Your task to perform on an android device: check the backup settings in the google photos Image 0: 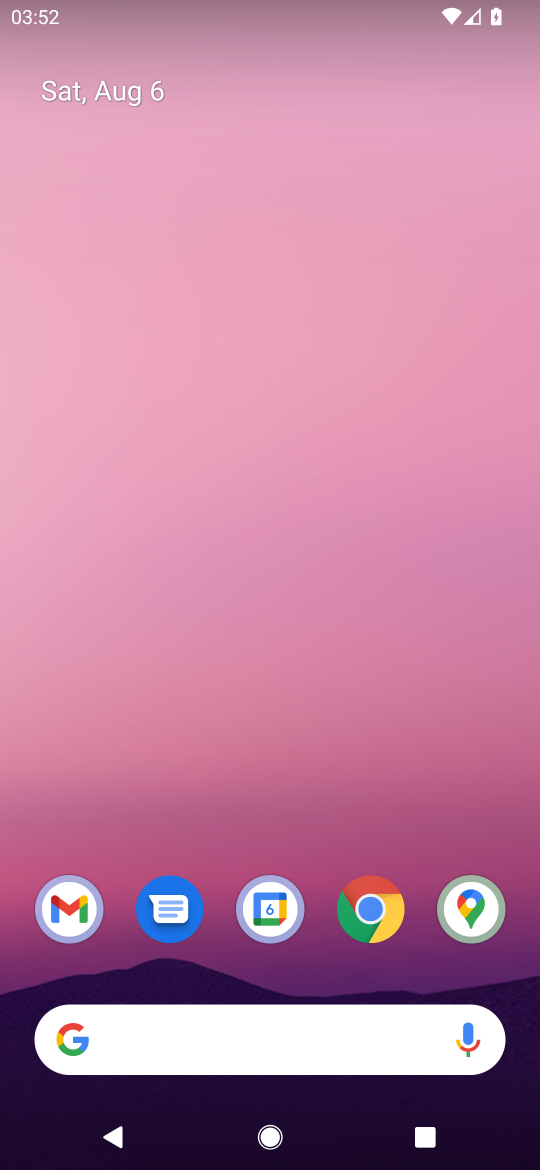
Step 0: drag from (276, 962) to (461, 16)
Your task to perform on an android device: check the backup settings in the google photos Image 1: 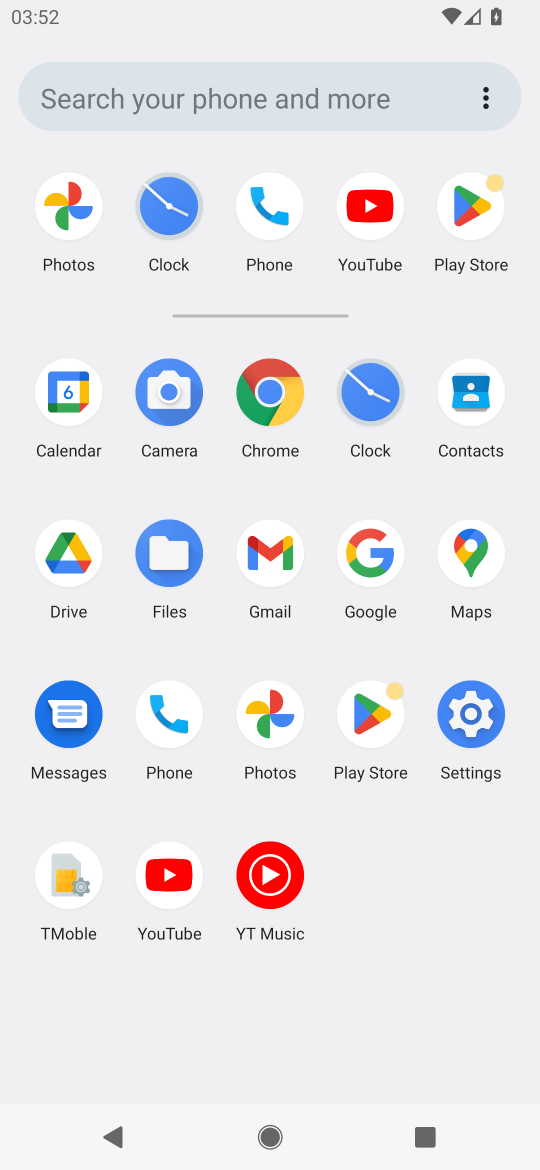
Step 1: click (271, 708)
Your task to perform on an android device: check the backup settings in the google photos Image 2: 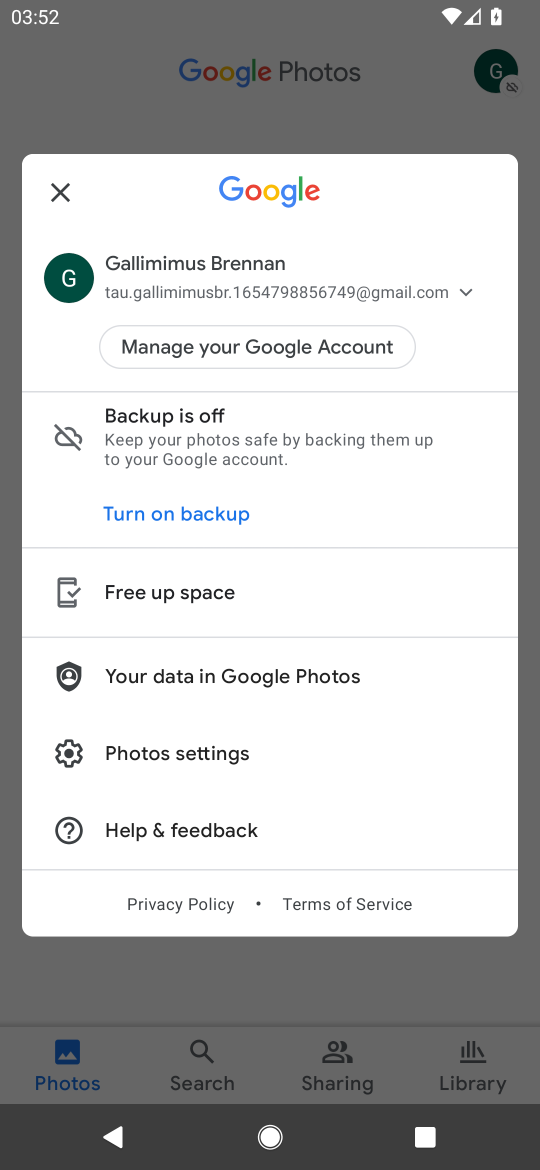
Step 2: click (231, 428)
Your task to perform on an android device: check the backup settings in the google photos Image 3: 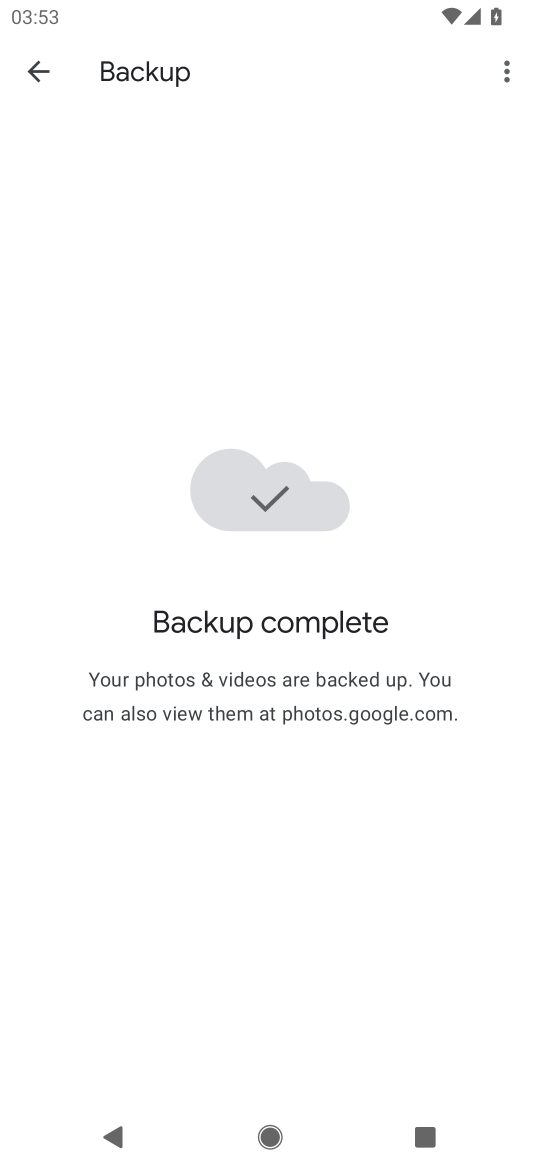
Step 3: task complete